Your task to perform on an android device: turn smart compose on in the gmail app Image 0: 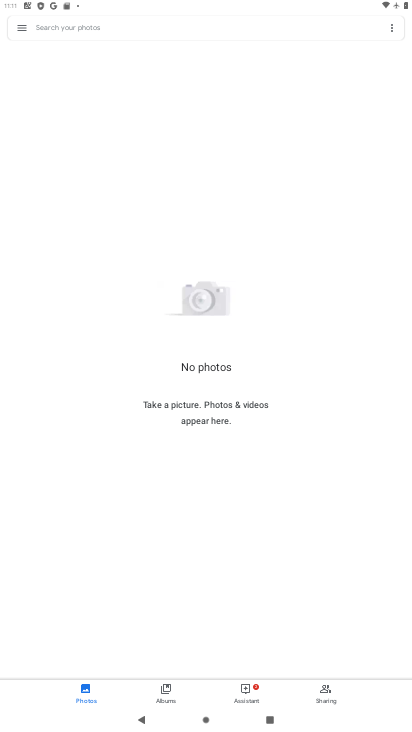
Step 0: press home button
Your task to perform on an android device: turn smart compose on in the gmail app Image 1: 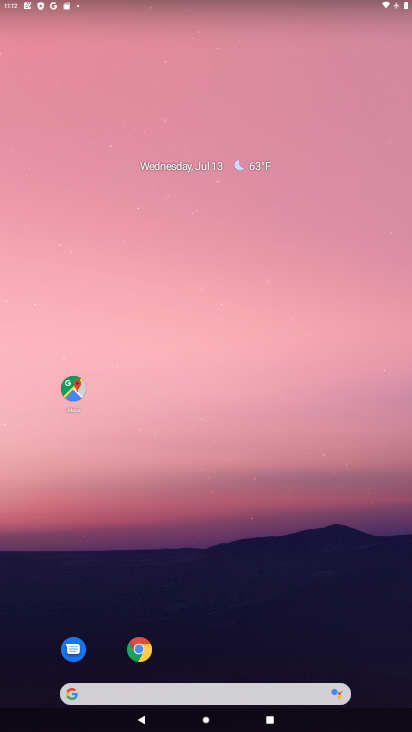
Step 1: drag from (208, 635) to (214, 238)
Your task to perform on an android device: turn smart compose on in the gmail app Image 2: 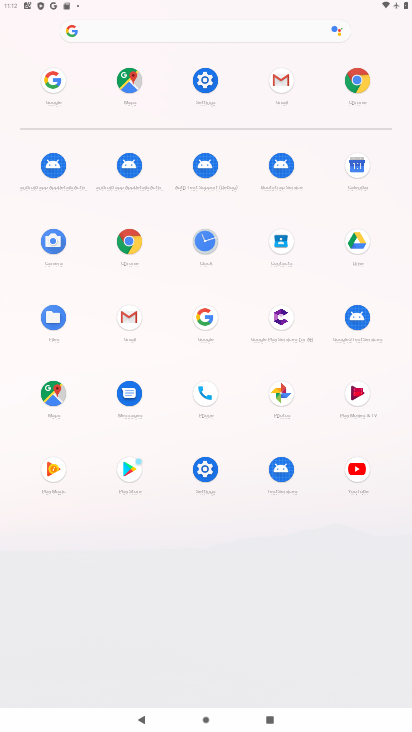
Step 2: click (121, 308)
Your task to perform on an android device: turn smart compose on in the gmail app Image 3: 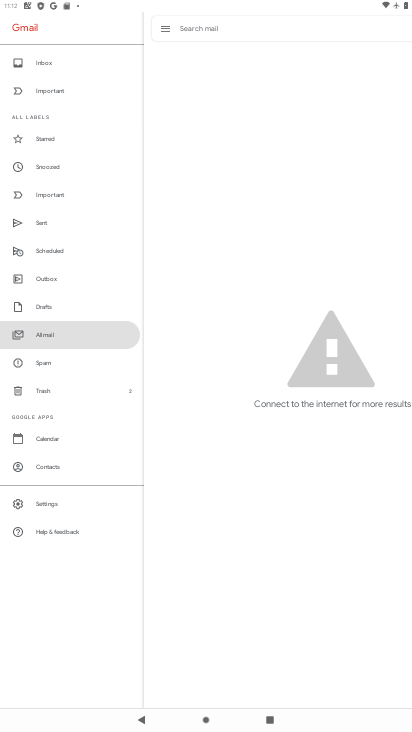
Step 3: click (58, 500)
Your task to perform on an android device: turn smart compose on in the gmail app Image 4: 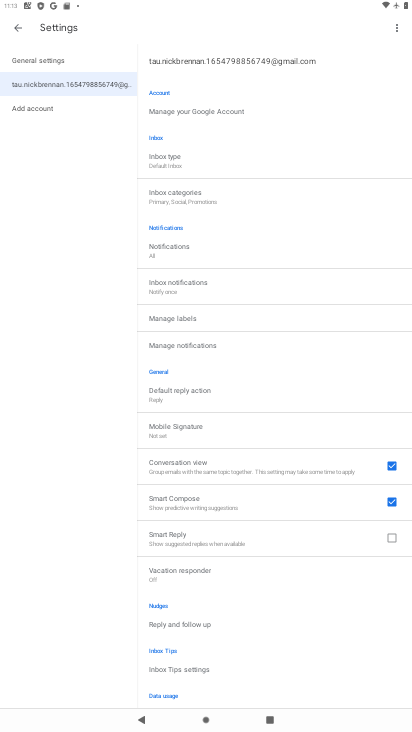
Step 4: task complete